Your task to perform on an android device: allow notifications from all sites in the chrome app Image 0: 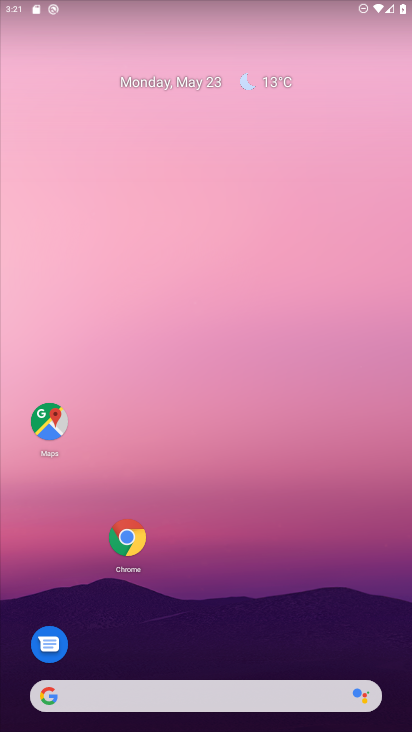
Step 0: drag from (230, 568) to (231, 202)
Your task to perform on an android device: allow notifications from all sites in the chrome app Image 1: 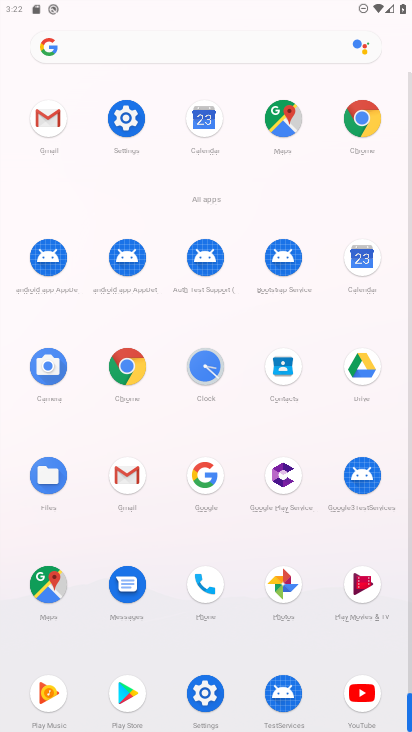
Step 1: click (369, 118)
Your task to perform on an android device: allow notifications from all sites in the chrome app Image 2: 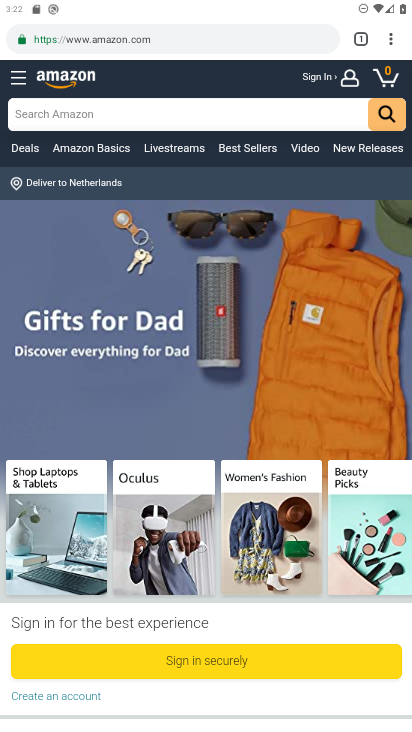
Step 2: drag from (398, 43) to (243, 469)
Your task to perform on an android device: allow notifications from all sites in the chrome app Image 3: 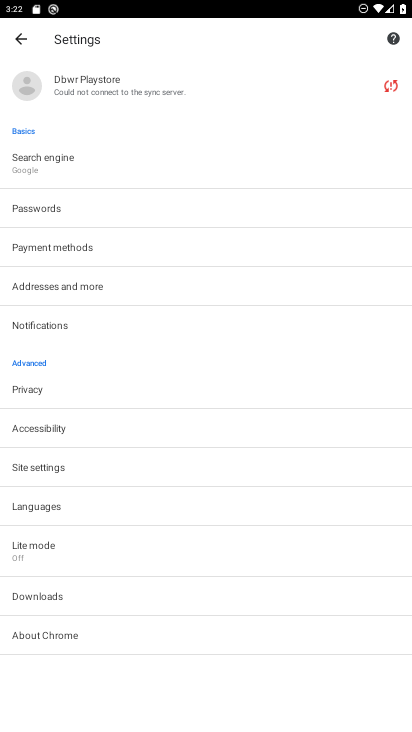
Step 3: click (53, 328)
Your task to perform on an android device: allow notifications from all sites in the chrome app Image 4: 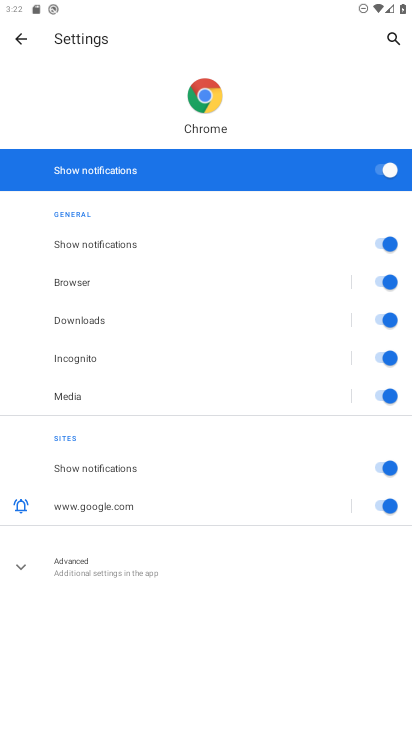
Step 4: task complete